Your task to perform on an android device: toggle data saver in the chrome app Image 0: 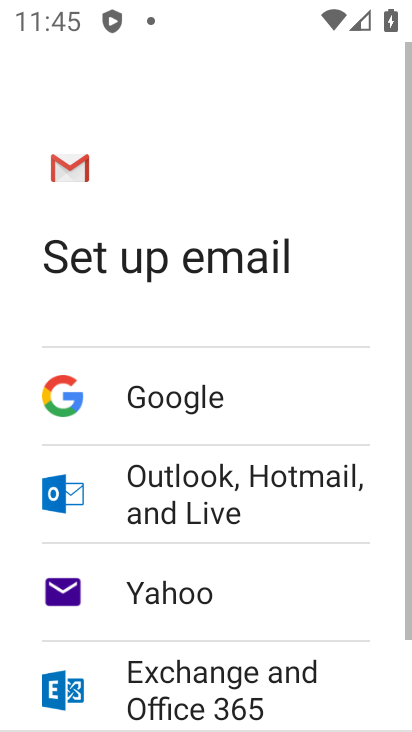
Step 0: press home button
Your task to perform on an android device: toggle data saver in the chrome app Image 1: 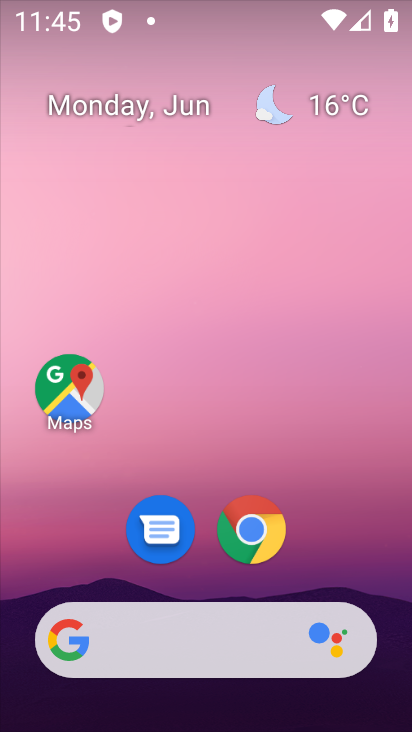
Step 1: click (243, 536)
Your task to perform on an android device: toggle data saver in the chrome app Image 2: 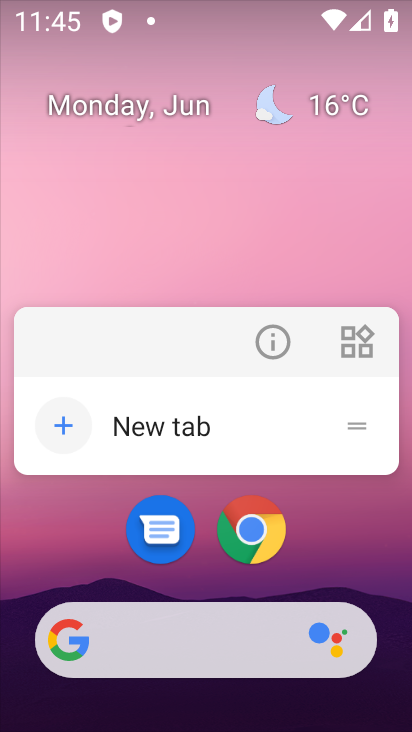
Step 2: click (260, 530)
Your task to perform on an android device: toggle data saver in the chrome app Image 3: 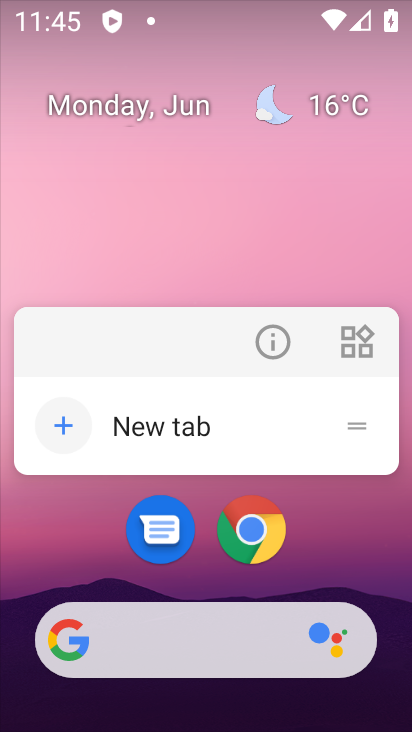
Step 3: click (262, 546)
Your task to perform on an android device: toggle data saver in the chrome app Image 4: 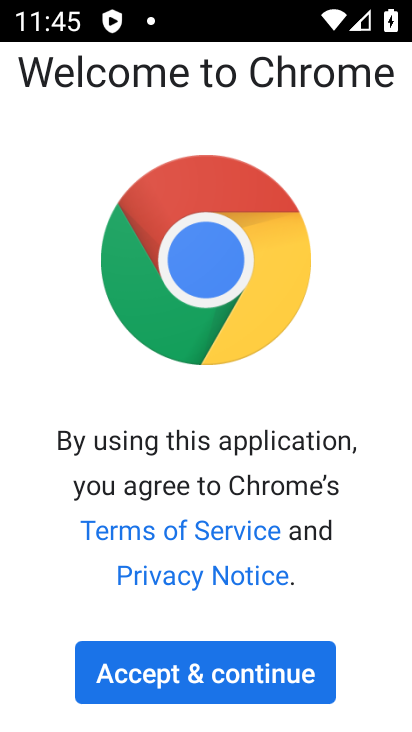
Step 4: click (216, 683)
Your task to perform on an android device: toggle data saver in the chrome app Image 5: 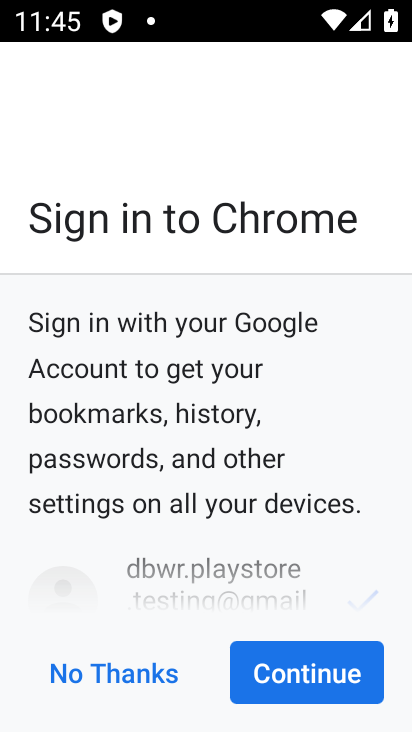
Step 5: click (267, 694)
Your task to perform on an android device: toggle data saver in the chrome app Image 6: 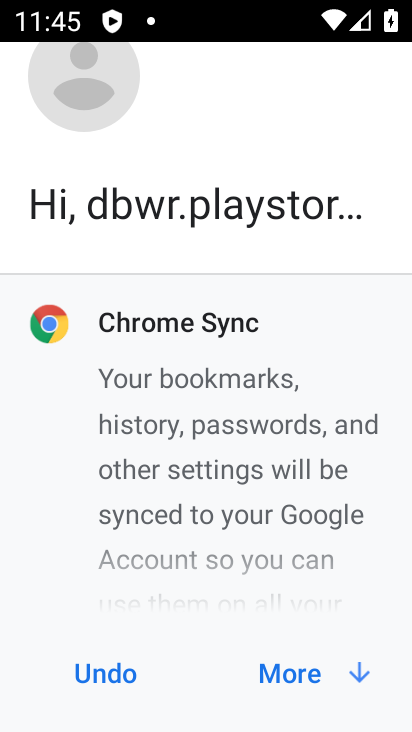
Step 6: click (267, 694)
Your task to perform on an android device: toggle data saver in the chrome app Image 7: 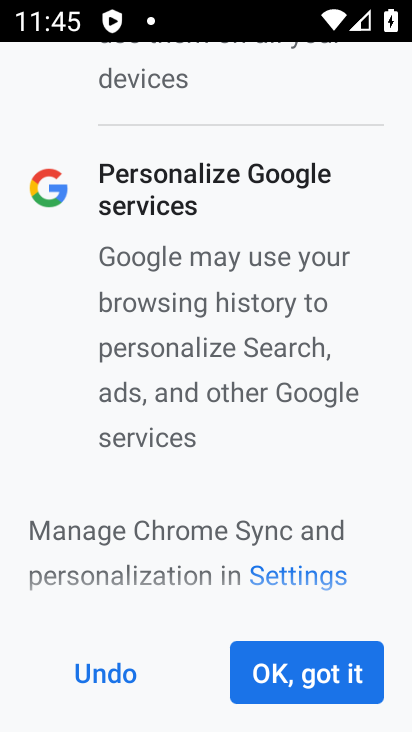
Step 7: click (266, 693)
Your task to perform on an android device: toggle data saver in the chrome app Image 8: 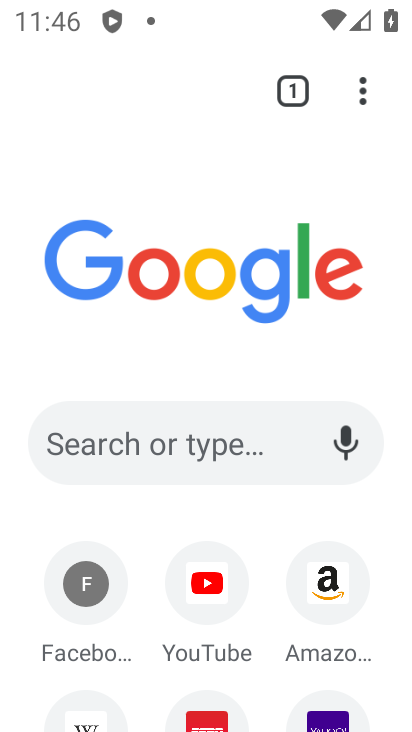
Step 8: drag from (360, 96) to (244, 549)
Your task to perform on an android device: toggle data saver in the chrome app Image 9: 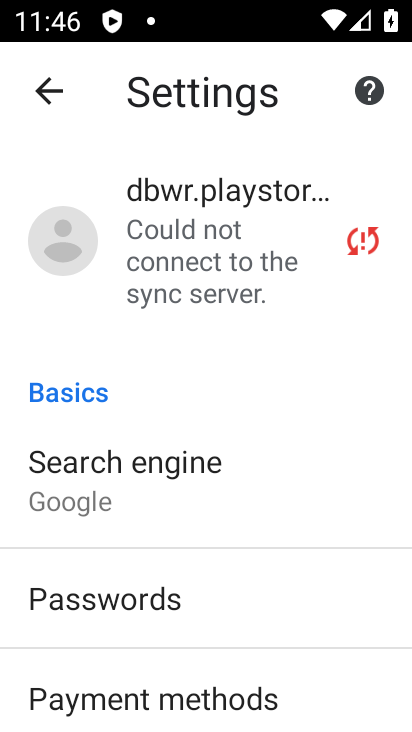
Step 9: drag from (240, 659) to (294, 254)
Your task to perform on an android device: toggle data saver in the chrome app Image 10: 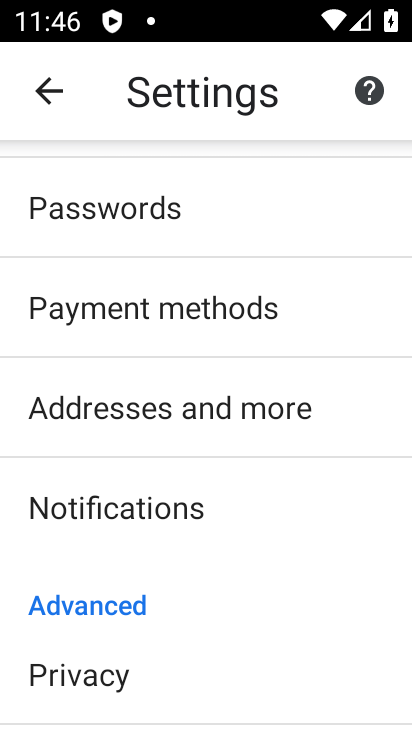
Step 10: drag from (191, 659) to (263, 257)
Your task to perform on an android device: toggle data saver in the chrome app Image 11: 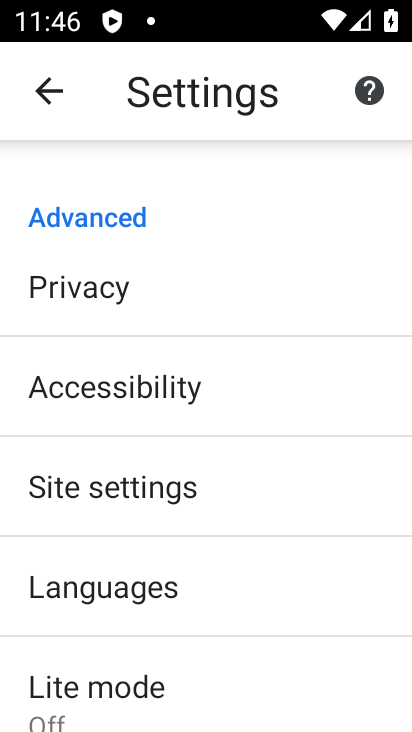
Step 11: click (171, 681)
Your task to perform on an android device: toggle data saver in the chrome app Image 12: 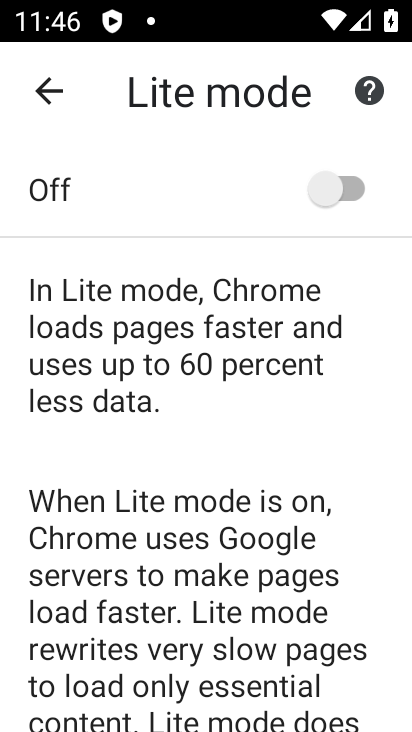
Step 12: drag from (141, 702) to (228, 250)
Your task to perform on an android device: toggle data saver in the chrome app Image 13: 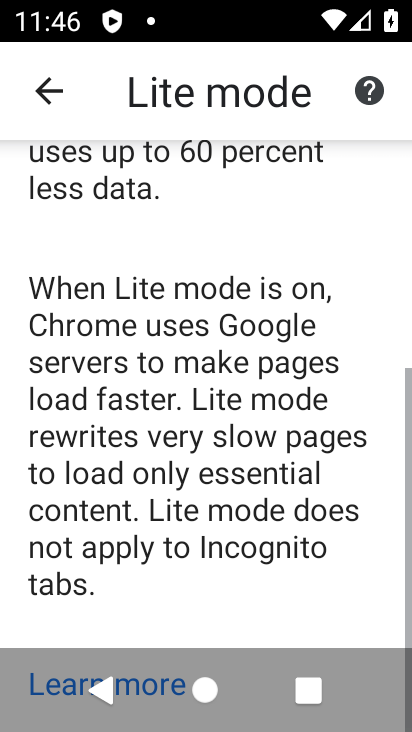
Step 13: drag from (343, 183) to (316, 628)
Your task to perform on an android device: toggle data saver in the chrome app Image 14: 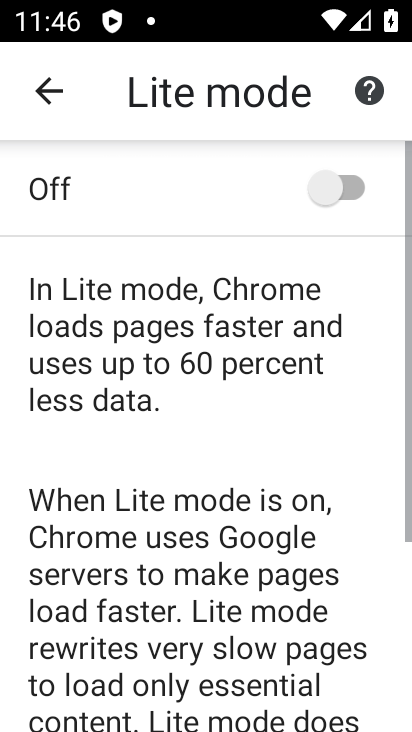
Step 14: click (375, 193)
Your task to perform on an android device: toggle data saver in the chrome app Image 15: 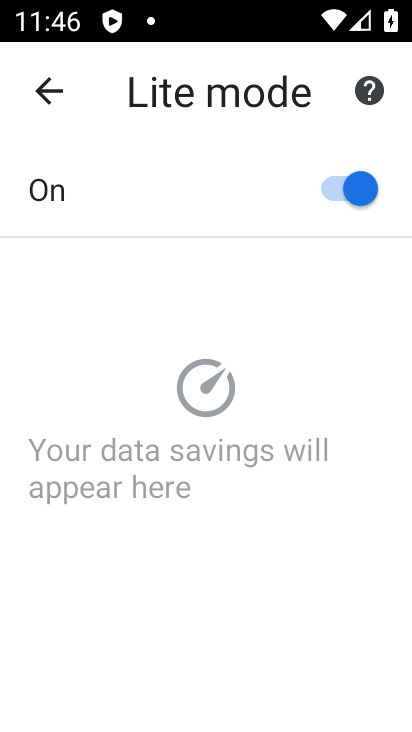
Step 15: task complete